Your task to perform on an android device: check android version Image 0: 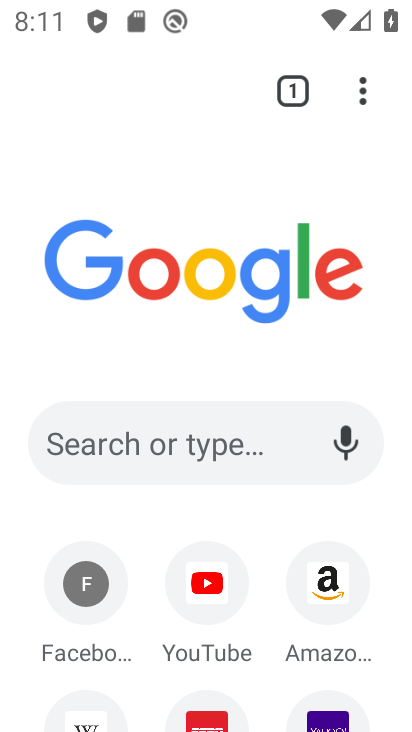
Step 0: press home button
Your task to perform on an android device: check android version Image 1: 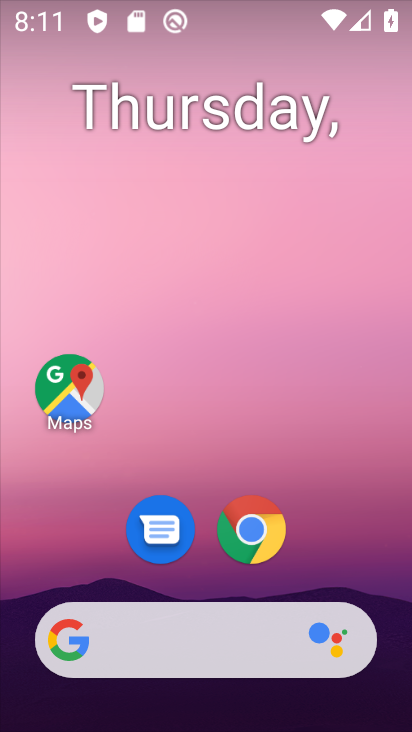
Step 1: drag from (201, 557) to (302, 107)
Your task to perform on an android device: check android version Image 2: 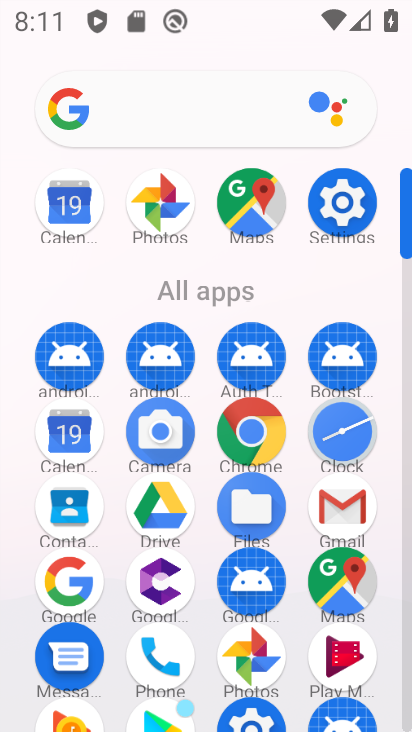
Step 2: click (339, 202)
Your task to perform on an android device: check android version Image 3: 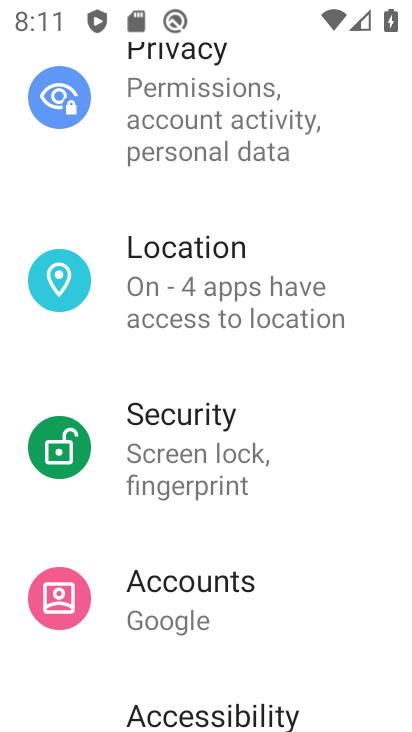
Step 3: drag from (302, 432) to (364, 71)
Your task to perform on an android device: check android version Image 4: 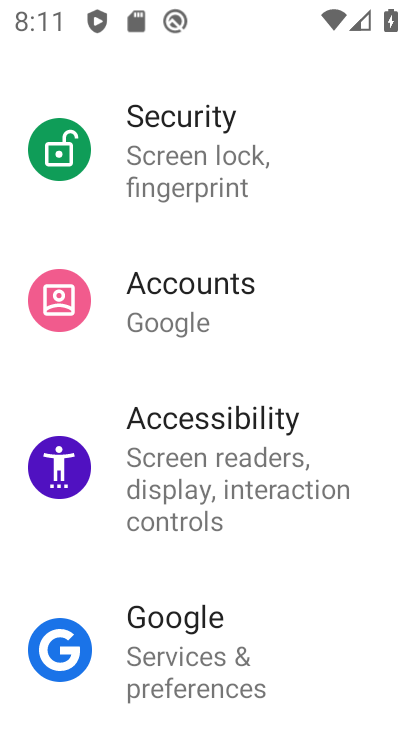
Step 4: drag from (300, 672) to (390, 56)
Your task to perform on an android device: check android version Image 5: 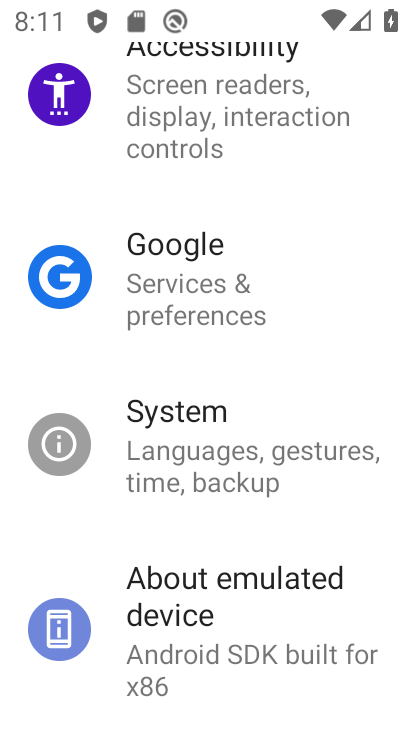
Step 5: click (225, 610)
Your task to perform on an android device: check android version Image 6: 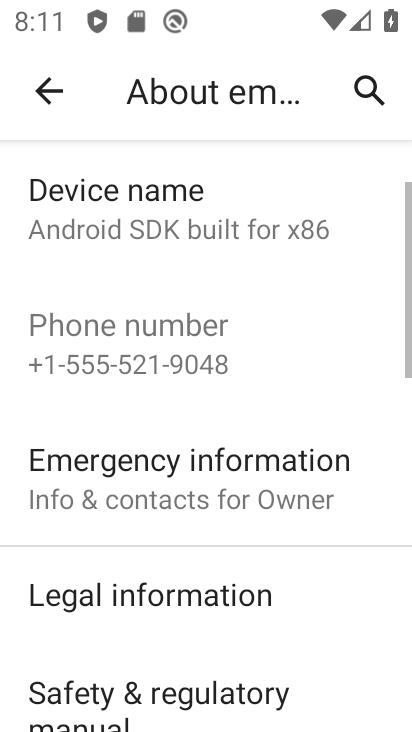
Step 6: drag from (208, 638) to (291, 104)
Your task to perform on an android device: check android version Image 7: 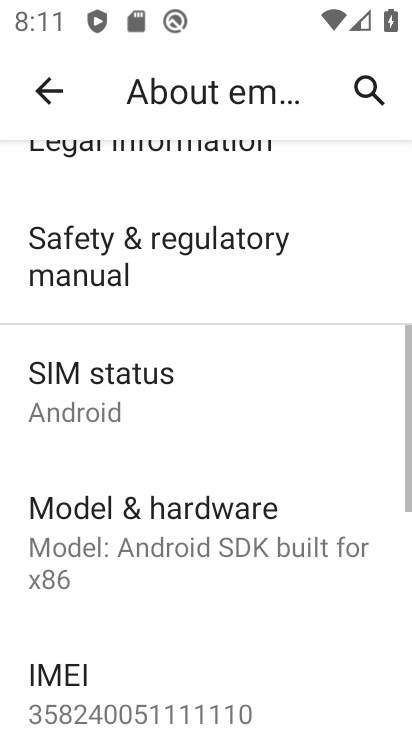
Step 7: drag from (225, 628) to (291, 159)
Your task to perform on an android device: check android version Image 8: 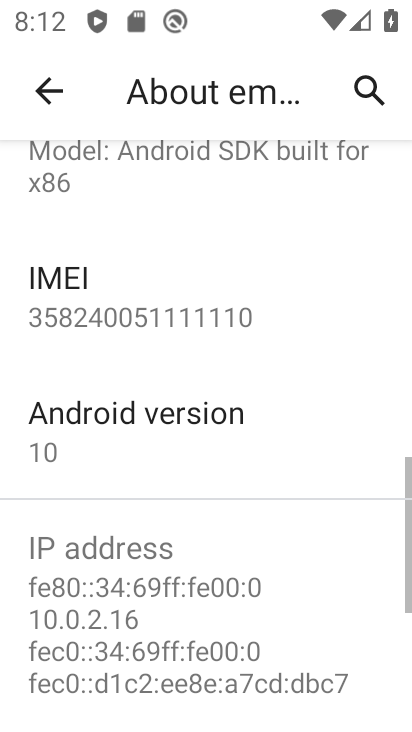
Step 8: click (117, 408)
Your task to perform on an android device: check android version Image 9: 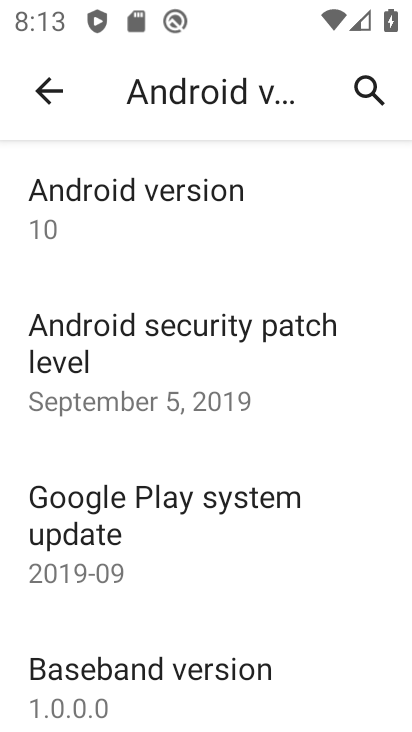
Step 9: task complete